Your task to perform on an android device: show emergency info Image 0: 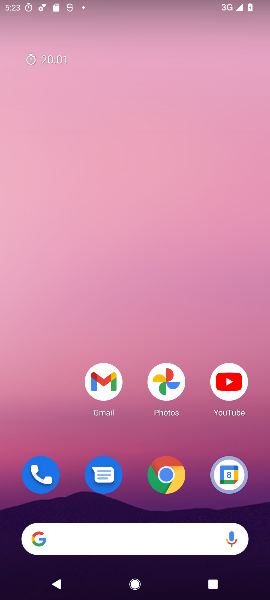
Step 0: drag from (59, 436) to (66, 200)
Your task to perform on an android device: show emergency info Image 1: 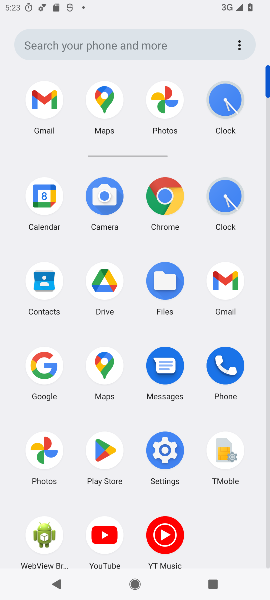
Step 1: click (162, 455)
Your task to perform on an android device: show emergency info Image 2: 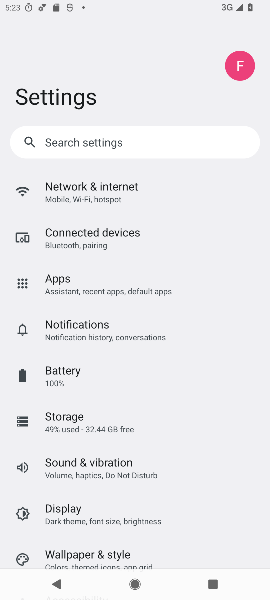
Step 2: drag from (234, 445) to (237, 378)
Your task to perform on an android device: show emergency info Image 3: 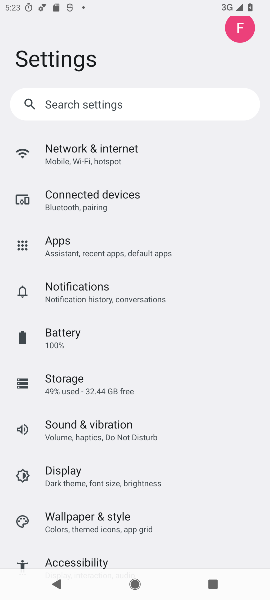
Step 3: drag from (223, 470) to (219, 392)
Your task to perform on an android device: show emergency info Image 4: 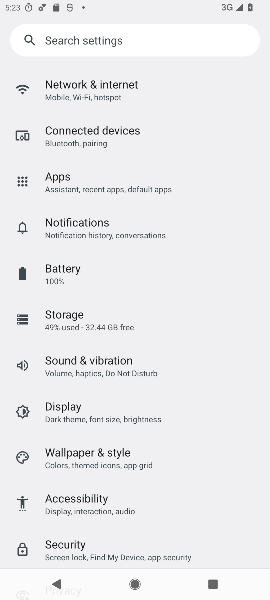
Step 4: drag from (208, 469) to (209, 367)
Your task to perform on an android device: show emergency info Image 5: 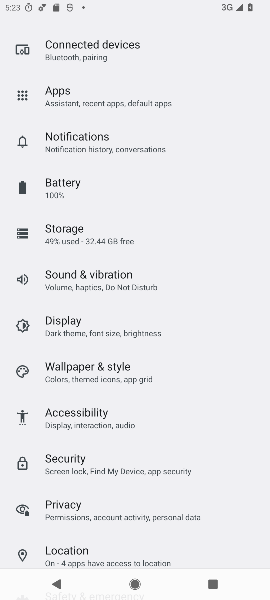
Step 5: drag from (228, 460) to (232, 366)
Your task to perform on an android device: show emergency info Image 6: 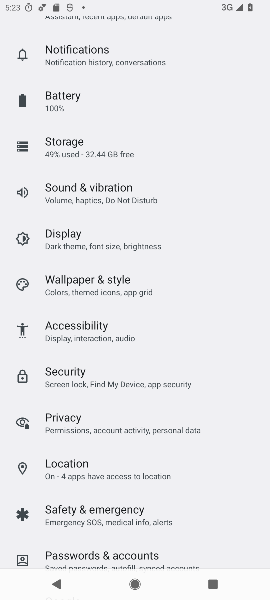
Step 6: drag from (215, 491) to (225, 376)
Your task to perform on an android device: show emergency info Image 7: 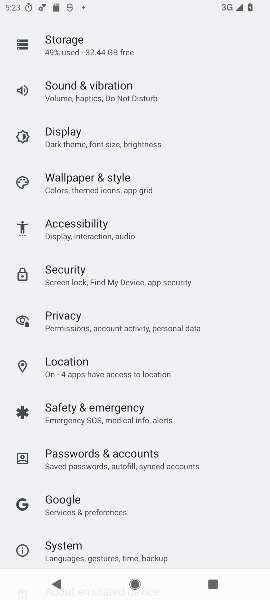
Step 7: drag from (224, 478) to (231, 368)
Your task to perform on an android device: show emergency info Image 8: 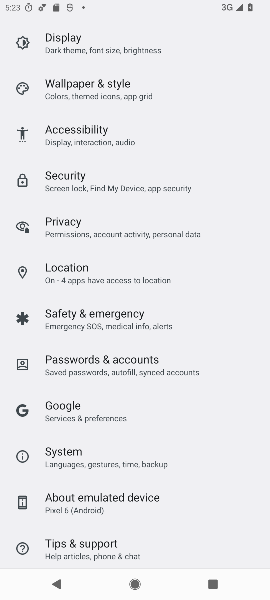
Step 8: drag from (220, 477) to (219, 407)
Your task to perform on an android device: show emergency info Image 9: 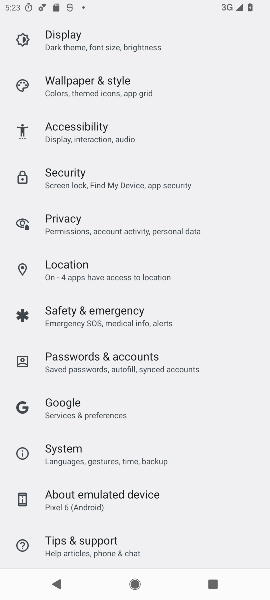
Step 9: click (163, 318)
Your task to perform on an android device: show emergency info Image 10: 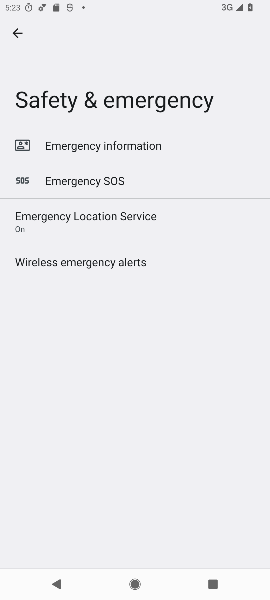
Step 10: click (161, 148)
Your task to perform on an android device: show emergency info Image 11: 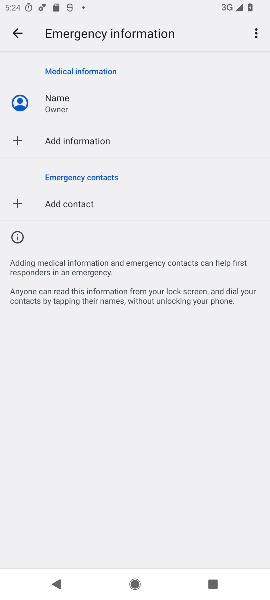
Step 11: task complete